Your task to perform on an android device: turn on priority inbox in the gmail app Image 0: 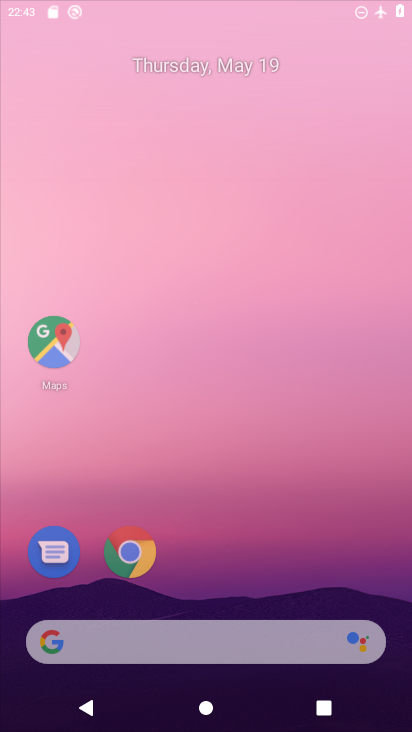
Step 0: drag from (211, 529) to (225, 3)
Your task to perform on an android device: turn on priority inbox in the gmail app Image 1: 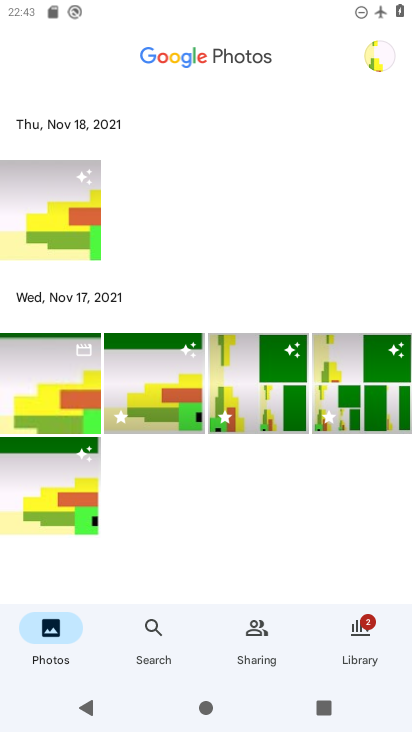
Step 1: press home button
Your task to perform on an android device: turn on priority inbox in the gmail app Image 2: 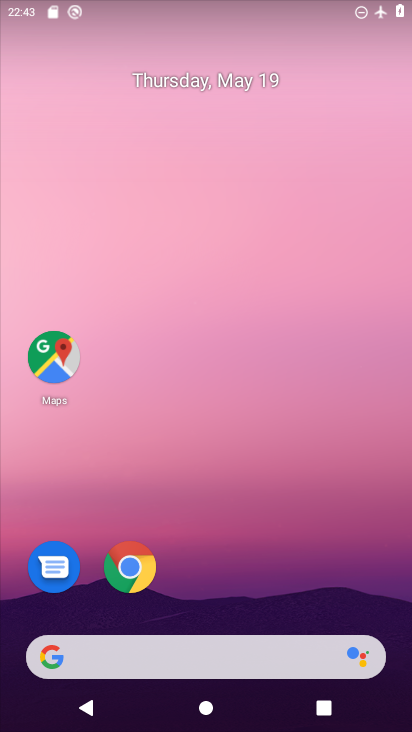
Step 2: drag from (213, 593) to (219, 44)
Your task to perform on an android device: turn on priority inbox in the gmail app Image 3: 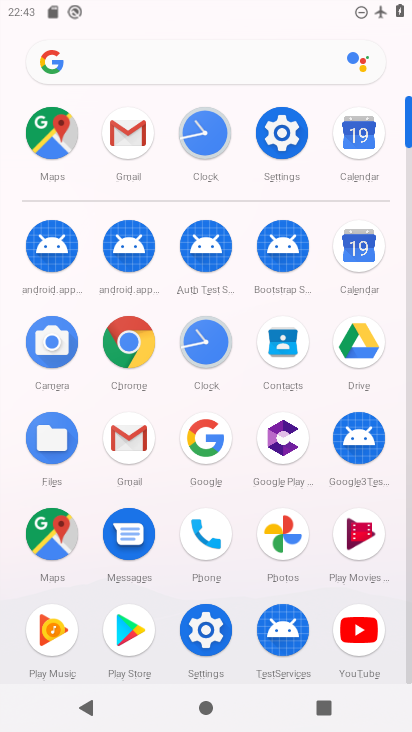
Step 3: click (124, 124)
Your task to perform on an android device: turn on priority inbox in the gmail app Image 4: 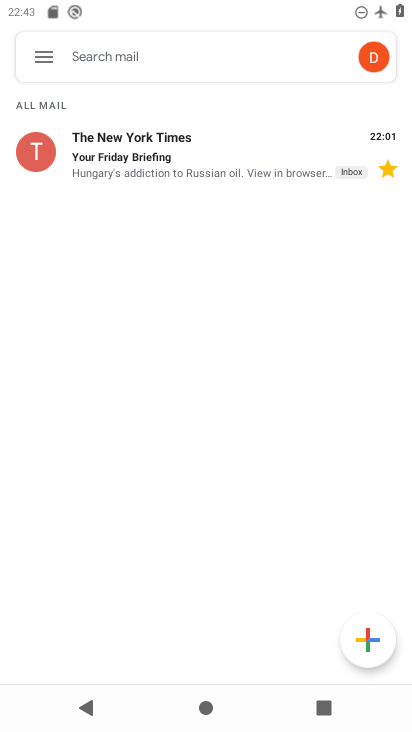
Step 4: click (37, 63)
Your task to perform on an android device: turn on priority inbox in the gmail app Image 5: 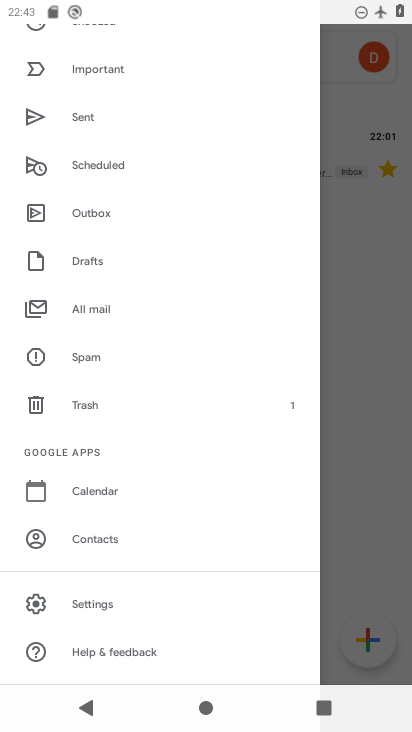
Step 5: click (123, 595)
Your task to perform on an android device: turn on priority inbox in the gmail app Image 6: 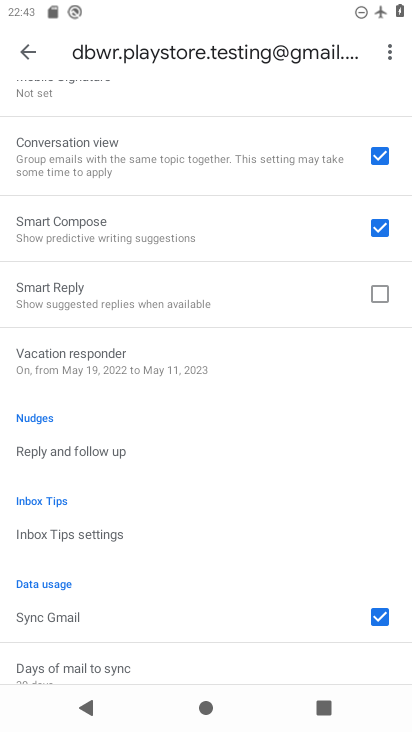
Step 6: drag from (143, 158) to (212, 641)
Your task to perform on an android device: turn on priority inbox in the gmail app Image 7: 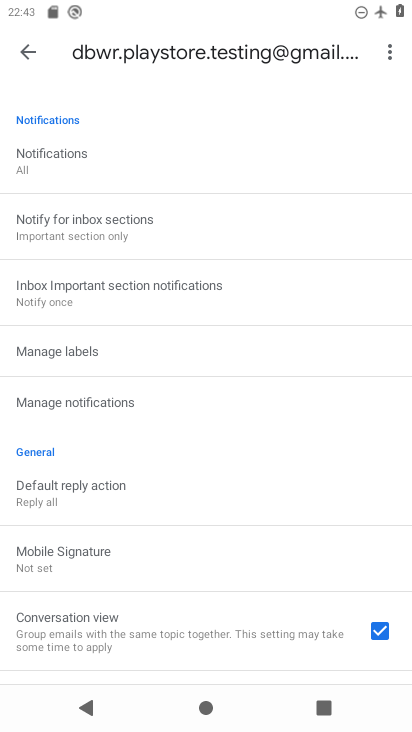
Step 7: drag from (136, 180) to (187, 638)
Your task to perform on an android device: turn on priority inbox in the gmail app Image 8: 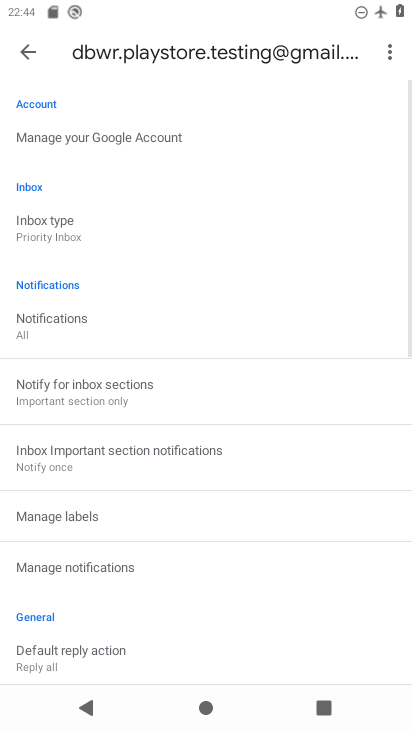
Step 8: click (106, 226)
Your task to perform on an android device: turn on priority inbox in the gmail app Image 9: 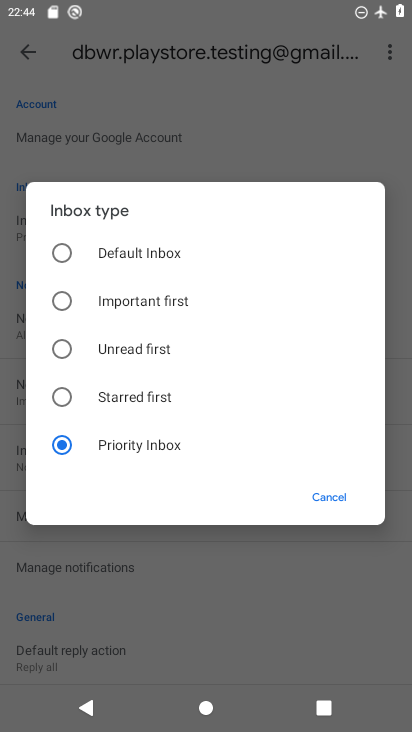
Step 9: task complete